Your task to perform on an android device: Open the calendar and show me this week's events? Image 0: 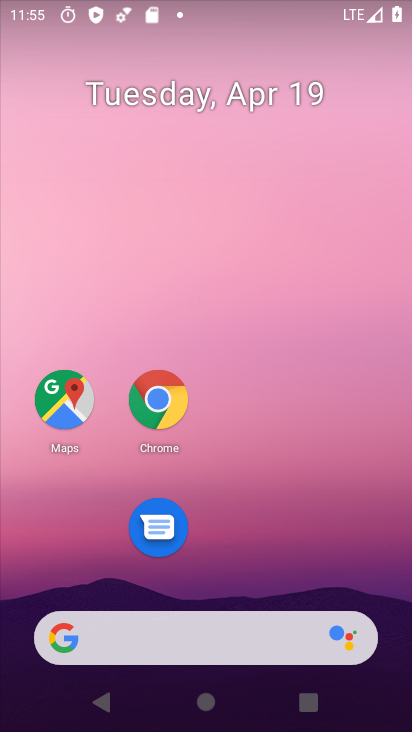
Step 0: drag from (233, 658) to (271, 66)
Your task to perform on an android device: Open the calendar and show me this week's events? Image 1: 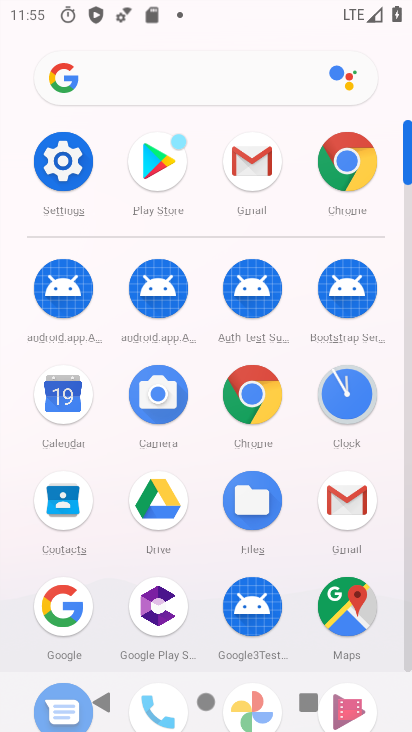
Step 1: click (63, 376)
Your task to perform on an android device: Open the calendar and show me this week's events? Image 2: 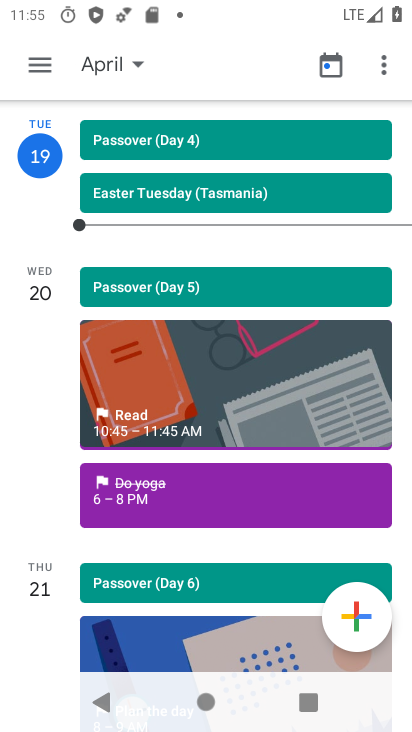
Step 2: click (33, 71)
Your task to perform on an android device: Open the calendar and show me this week's events? Image 3: 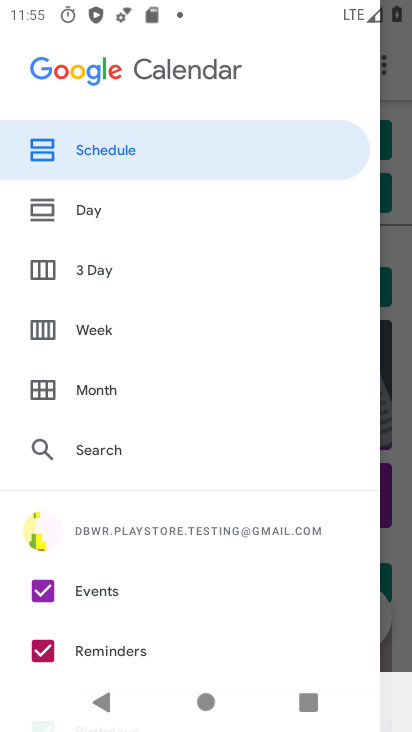
Step 3: click (82, 335)
Your task to perform on an android device: Open the calendar and show me this week's events? Image 4: 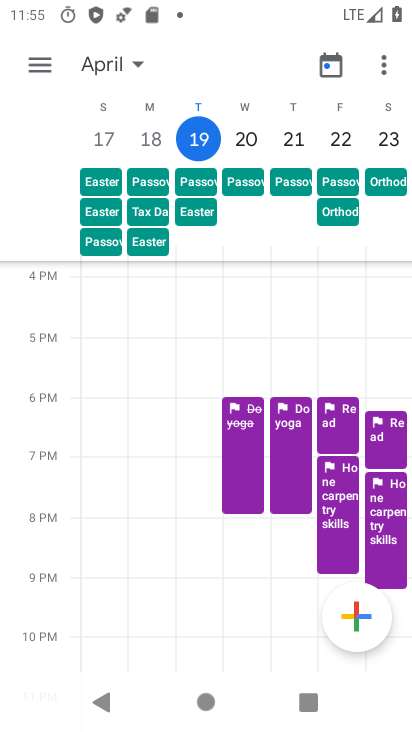
Step 4: task complete